Your task to perform on an android device: turn off location history Image 0: 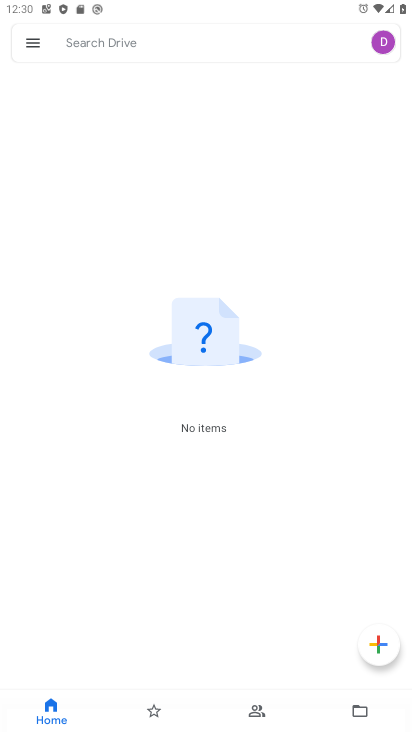
Step 0: press home button
Your task to perform on an android device: turn off location history Image 1: 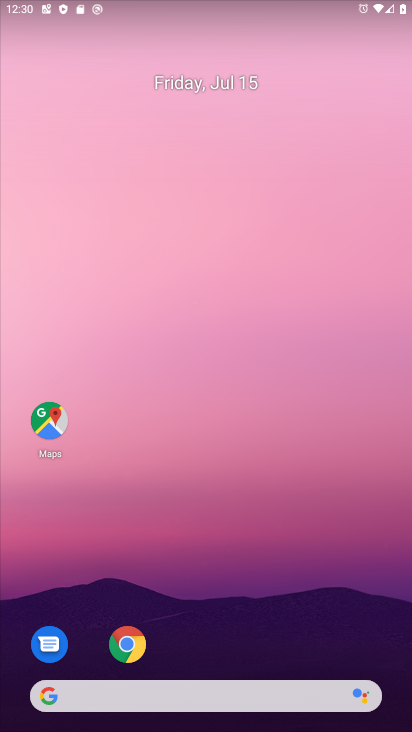
Step 1: drag from (327, 638) to (255, 3)
Your task to perform on an android device: turn off location history Image 2: 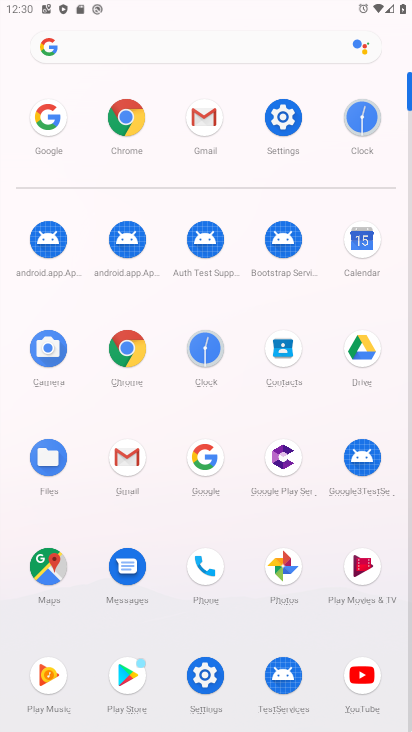
Step 2: click (195, 667)
Your task to perform on an android device: turn off location history Image 3: 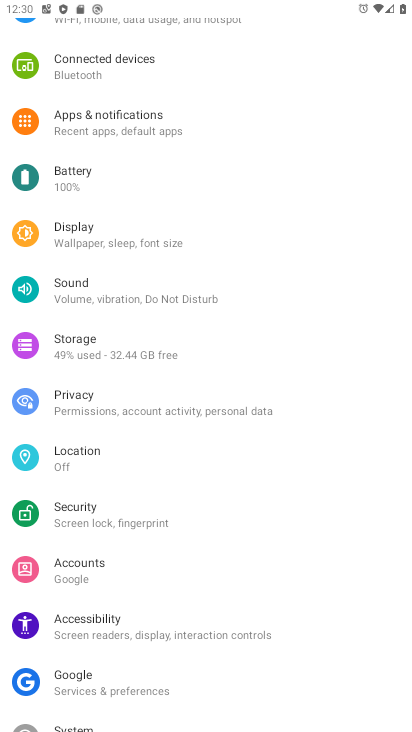
Step 3: click (63, 456)
Your task to perform on an android device: turn off location history Image 4: 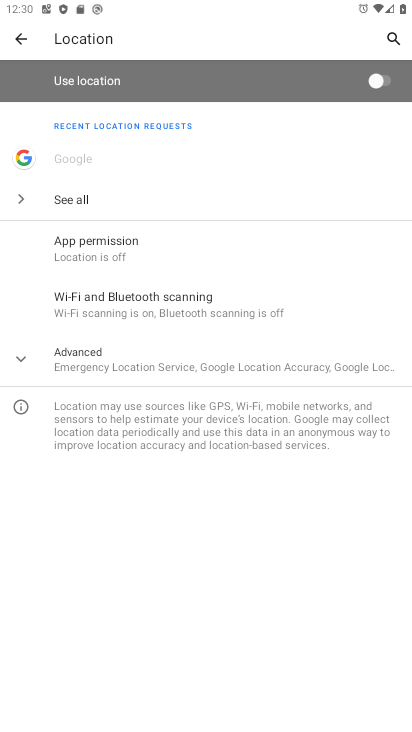
Step 4: click (91, 371)
Your task to perform on an android device: turn off location history Image 5: 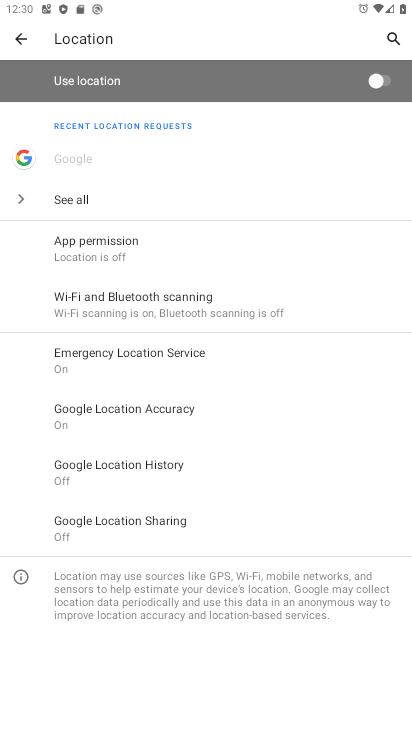
Step 5: click (134, 464)
Your task to perform on an android device: turn off location history Image 6: 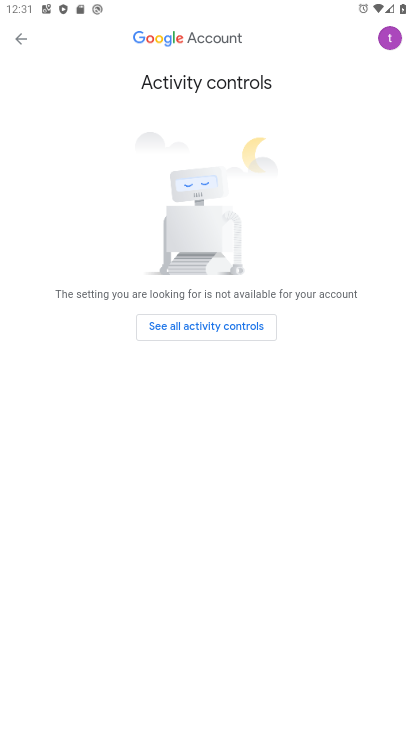
Step 6: task complete